Your task to perform on an android device: find photos in the google photos app Image 0: 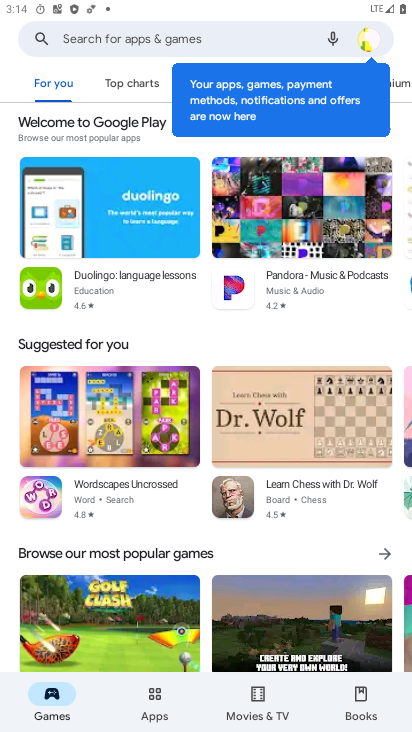
Step 0: press home button
Your task to perform on an android device: find photos in the google photos app Image 1: 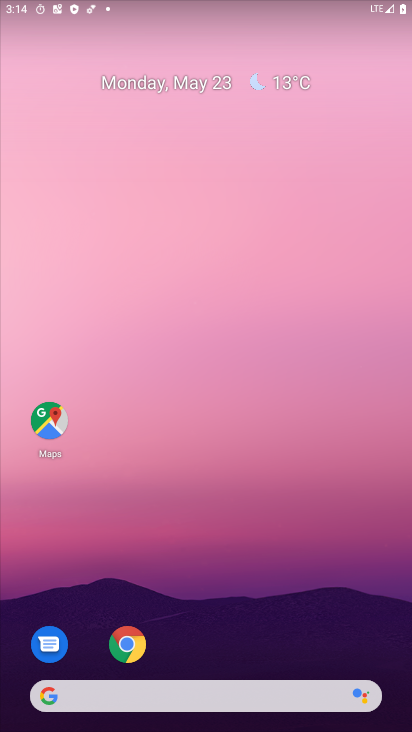
Step 1: drag from (235, 646) to (233, 20)
Your task to perform on an android device: find photos in the google photos app Image 2: 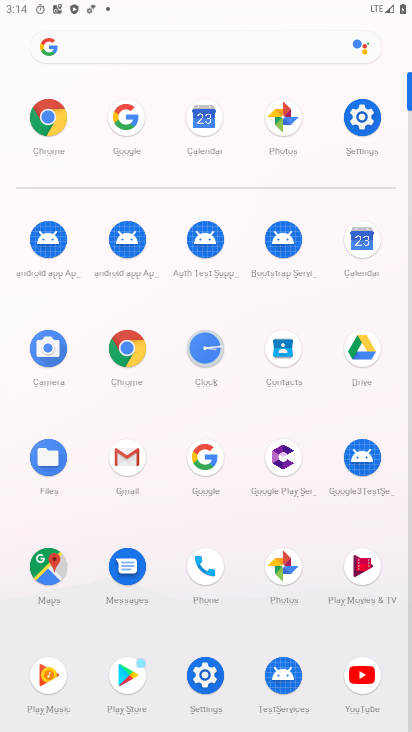
Step 2: click (290, 566)
Your task to perform on an android device: find photos in the google photos app Image 3: 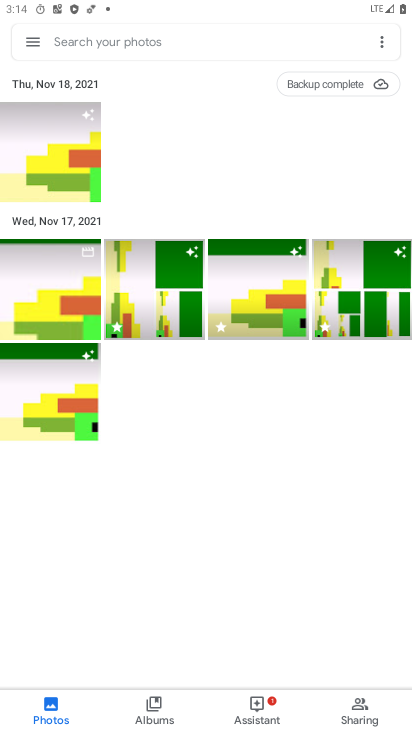
Step 3: click (33, 41)
Your task to perform on an android device: find photos in the google photos app Image 4: 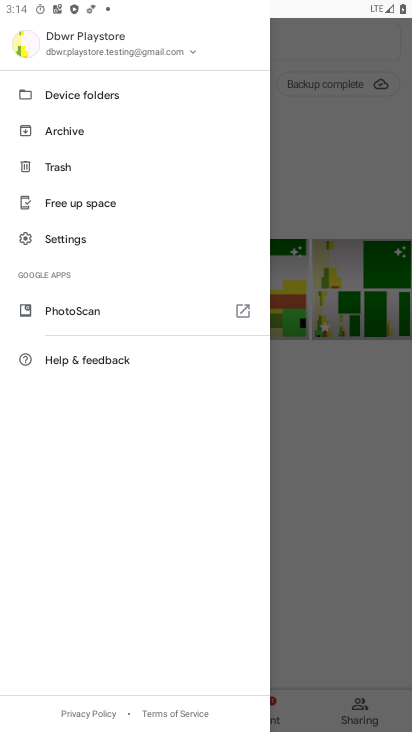
Step 4: click (317, 560)
Your task to perform on an android device: find photos in the google photos app Image 5: 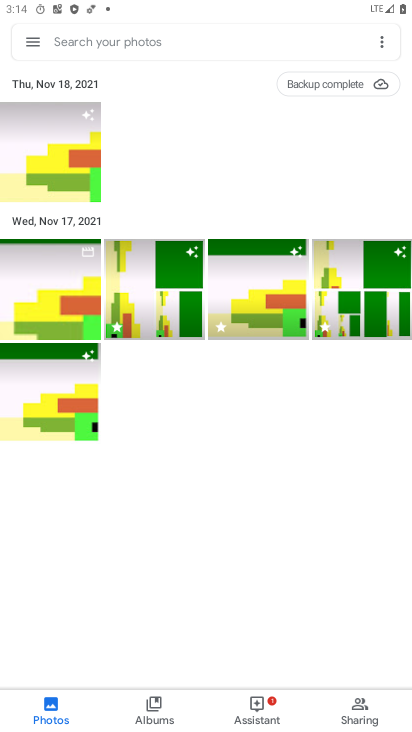
Step 5: task complete